Your task to perform on an android device: search for starred emails in the gmail app Image 0: 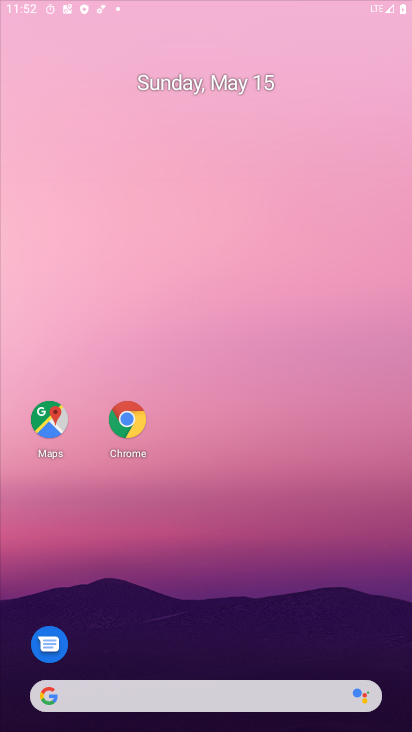
Step 0: click (286, 66)
Your task to perform on an android device: search for starred emails in the gmail app Image 1: 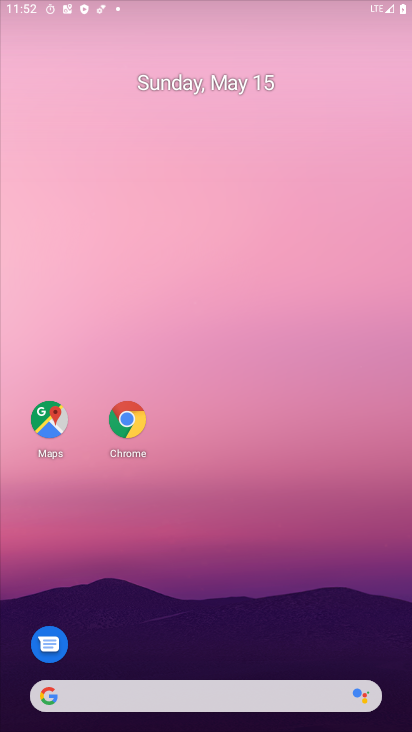
Step 1: drag from (237, 518) to (304, 102)
Your task to perform on an android device: search for starred emails in the gmail app Image 2: 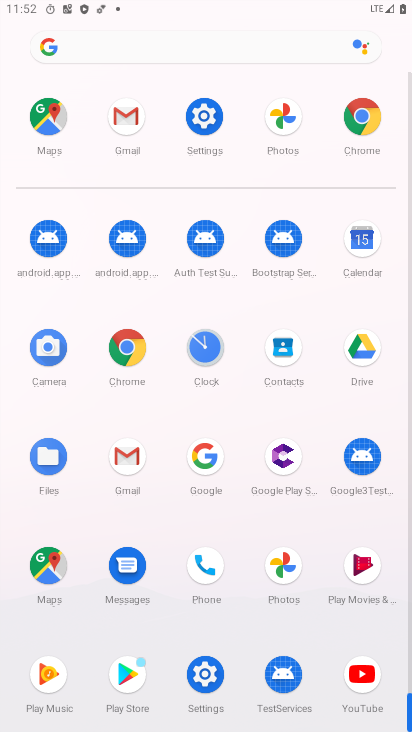
Step 2: drag from (239, 644) to (235, 89)
Your task to perform on an android device: search for starred emails in the gmail app Image 3: 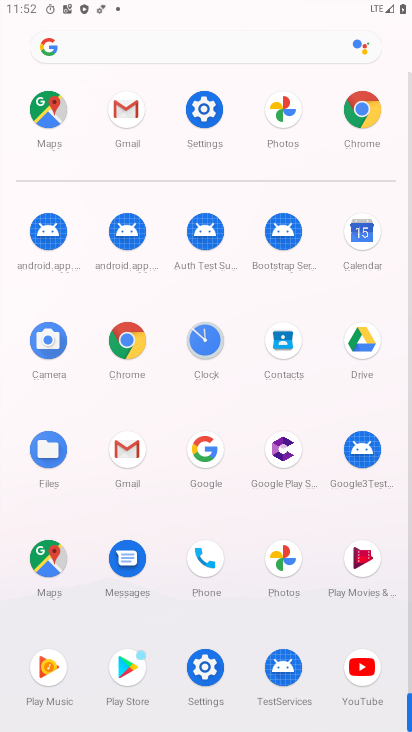
Step 3: click (118, 451)
Your task to perform on an android device: search for starred emails in the gmail app Image 4: 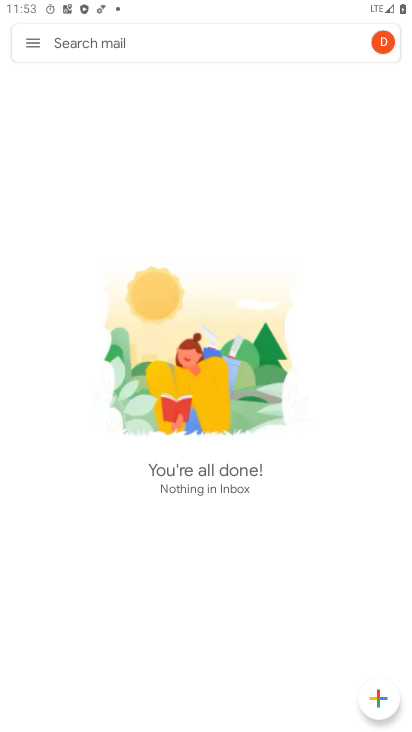
Step 4: drag from (153, 585) to (305, 40)
Your task to perform on an android device: search for starred emails in the gmail app Image 5: 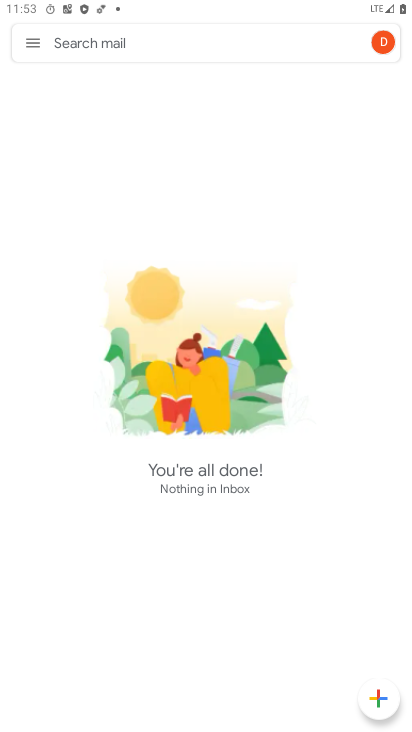
Step 5: drag from (149, 443) to (202, 86)
Your task to perform on an android device: search for starred emails in the gmail app Image 6: 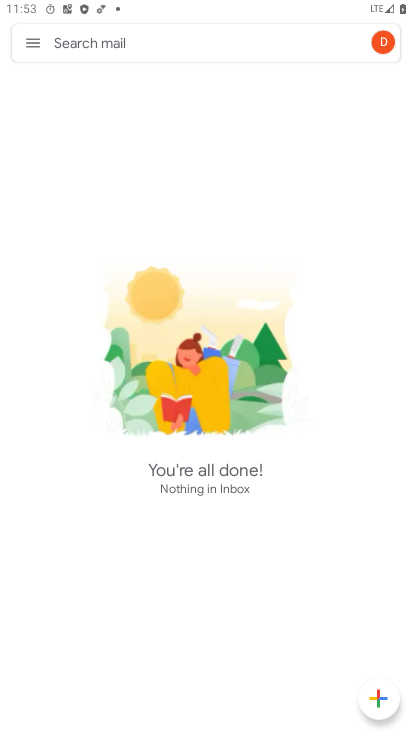
Step 6: click (21, 46)
Your task to perform on an android device: search for starred emails in the gmail app Image 7: 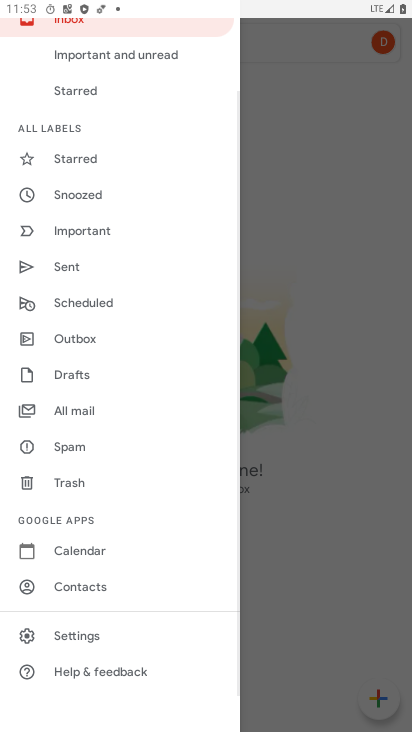
Step 7: drag from (107, 540) to (170, 122)
Your task to perform on an android device: search for starred emails in the gmail app Image 8: 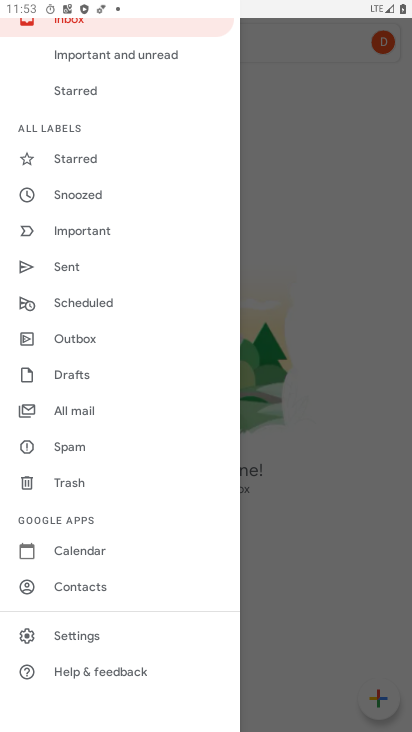
Step 8: click (109, 190)
Your task to perform on an android device: search for starred emails in the gmail app Image 9: 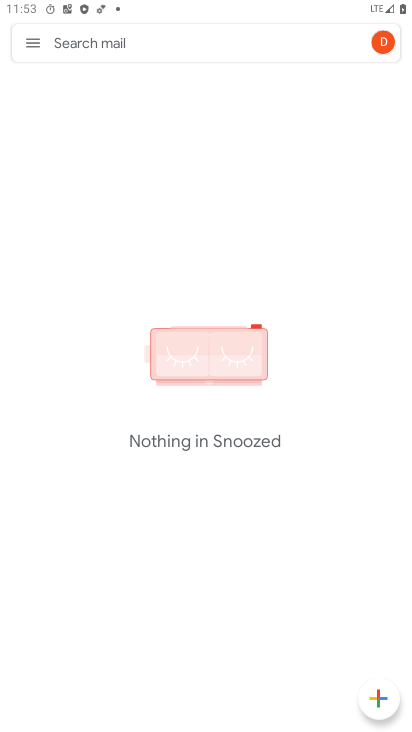
Step 9: click (34, 34)
Your task to perform on an android device: search for starred emails in the gmail app Image 10: 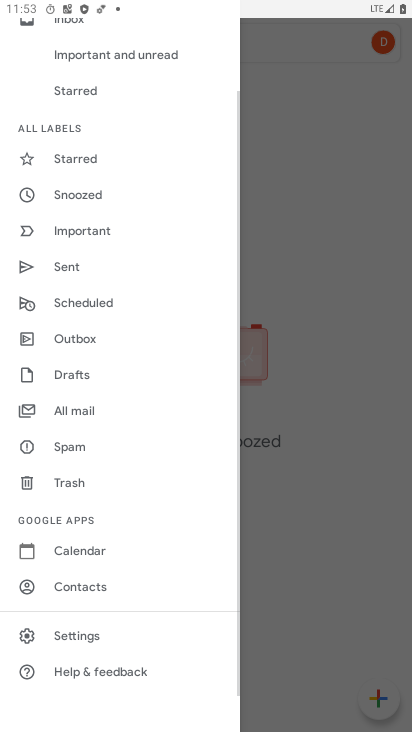
Step 10: click (90, 160)
Your task to perform on an android device: search for starred emails in the gmail app Image 11: 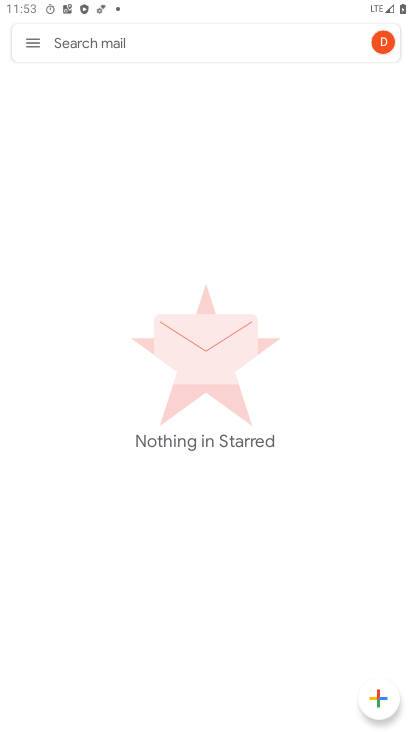
Step 11: task complete